Your task to perform on an android device: Open Reddit.com Image 0: 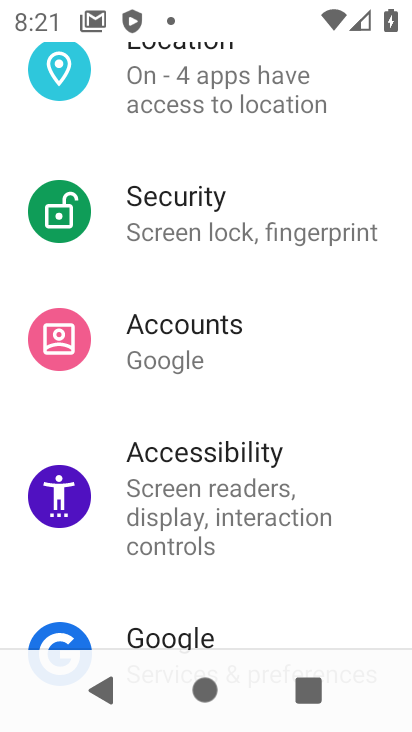
Step 0: press home button
Your task to perform on an android device: Open Reddit.com Image 1: 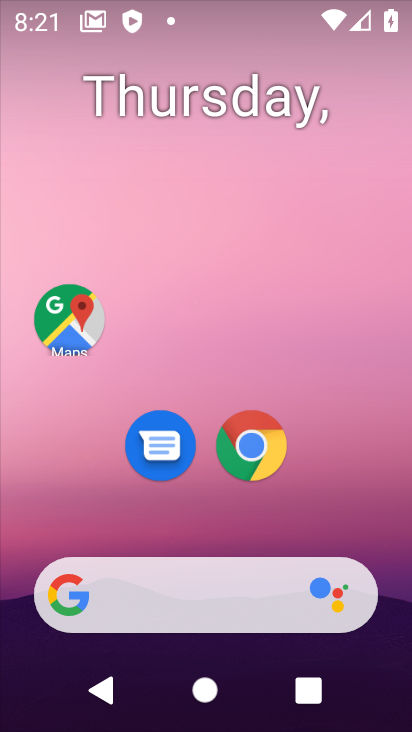
Step 1: click (270, 451)
Your task to perform on an android device: Open Reddit.com Image 2: 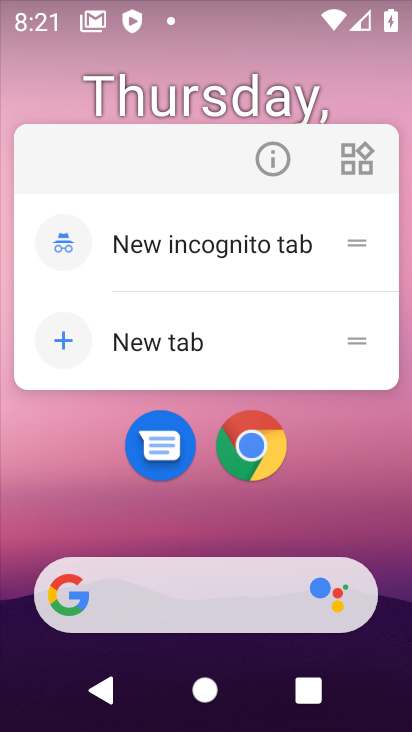
Step 2: click (275, 156)
Your task to perform on an android device: Open Reddit.com Image 3: 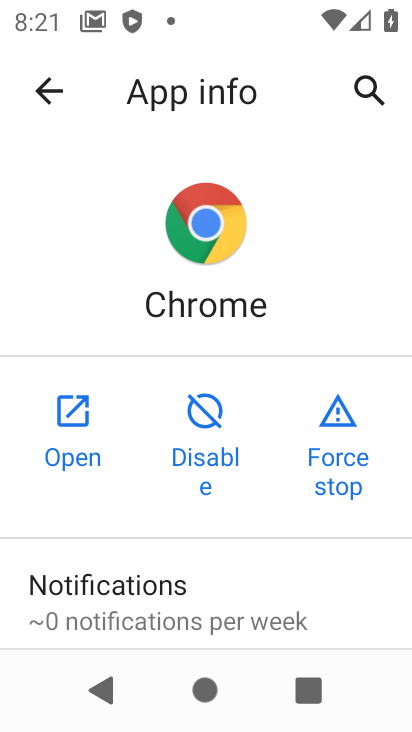
Step 3: click (84, 414)
Your task to perform on an android device: Open Reddit.com Image 4: 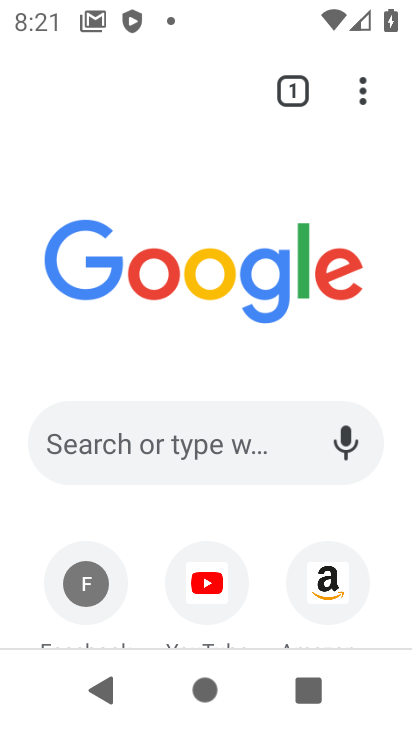
Step 4: drag from (95, 528) to (217, 153)
Your task to perform on an android device: Open Reddit.com Image 5: 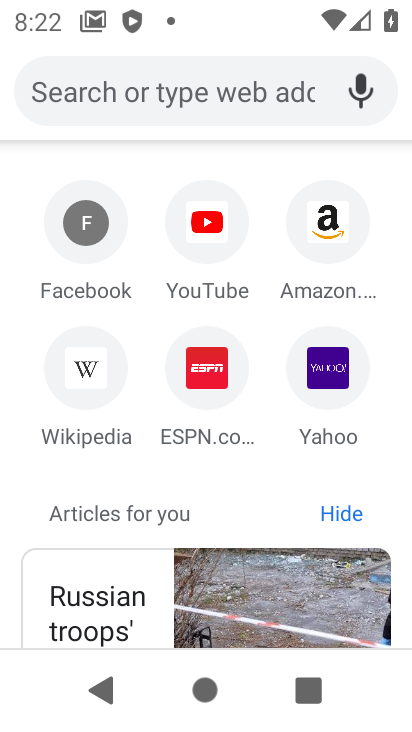
Step 5: click (130, 80)
Your task to perform on an android device: Open Reddit.com Image 6: 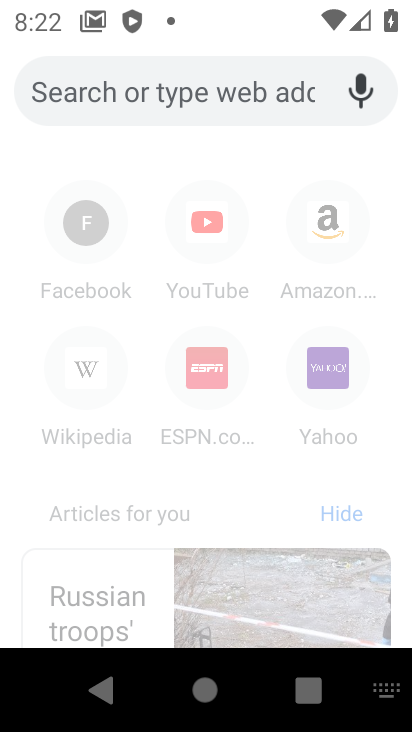
Step 6: type "Reddit.com"
Your task to perform on an android device: Open Reddit.com Image 7: 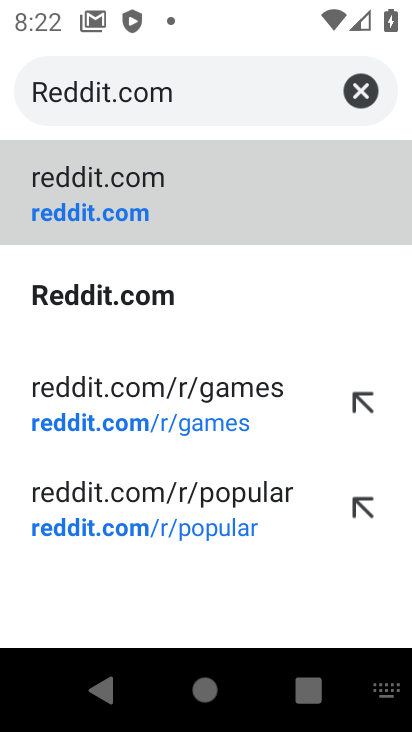
Step 7: click (102, 305)
Your task to perform on an android device: Open Reddit.com Image 8: 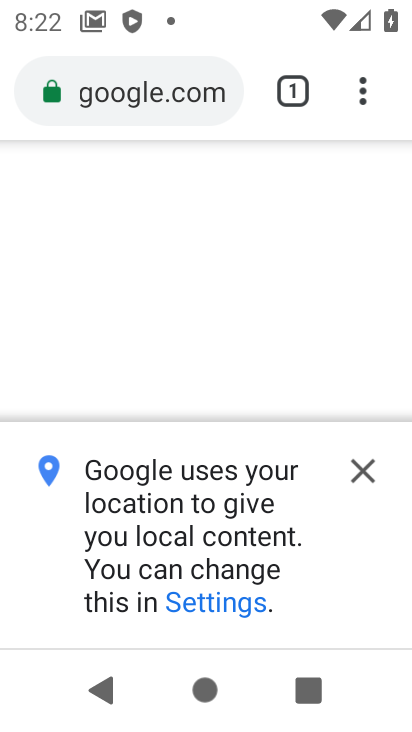
Step 8: click (378, 464)
Your task to perform on an android device: Open Reddit.com Image 9: 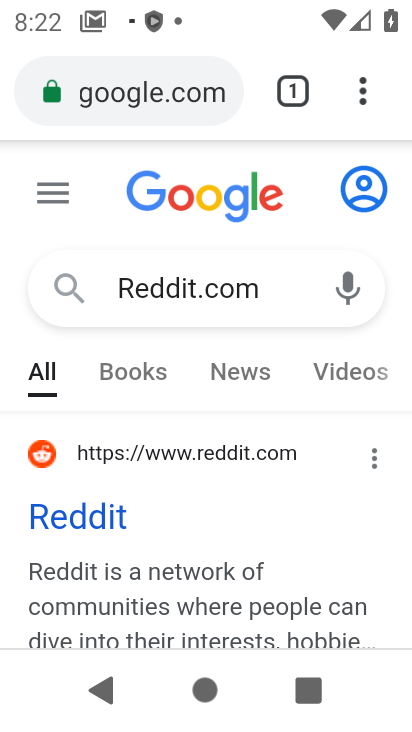
Step 9: task complete